Your task to perform on an android device: change alarm snooze length Image 0: 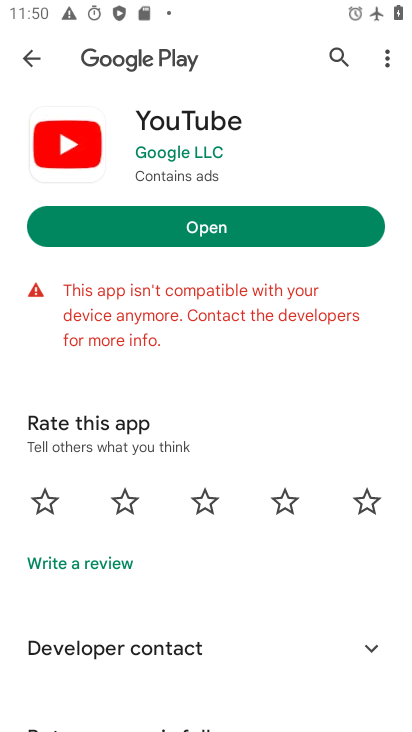
Step 0: press home button
Your task to perform on an android device: change alarm snooze length Image 1: 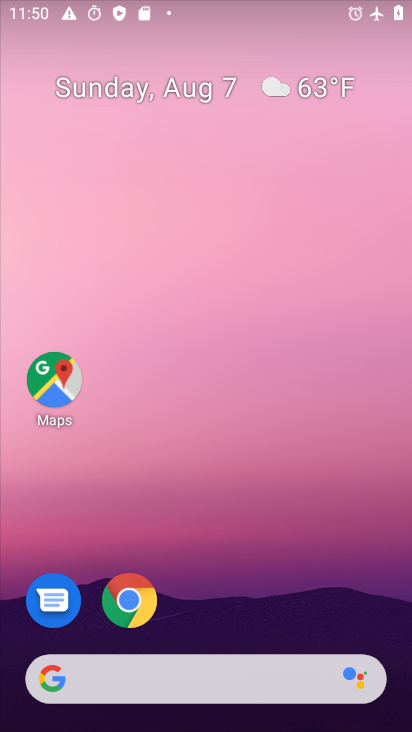
Step 1: drag from (236, 615) to (257, 74)
Your task to perform on an android device: change alarm snooze length Image 2: 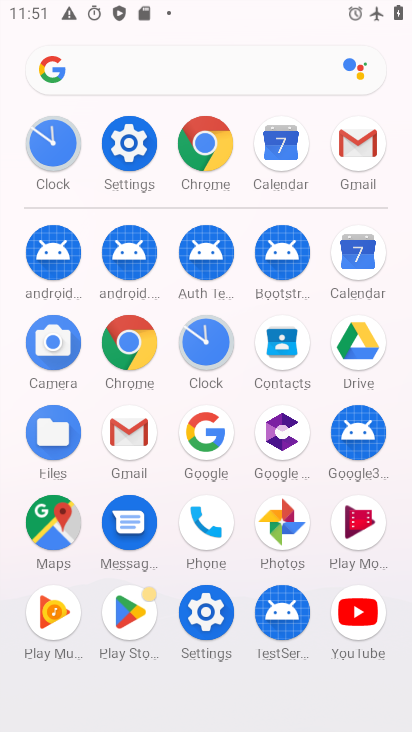
Step 2: click (212, 364)
Your task to perform on an android device: change alarm snooze length Image 3: 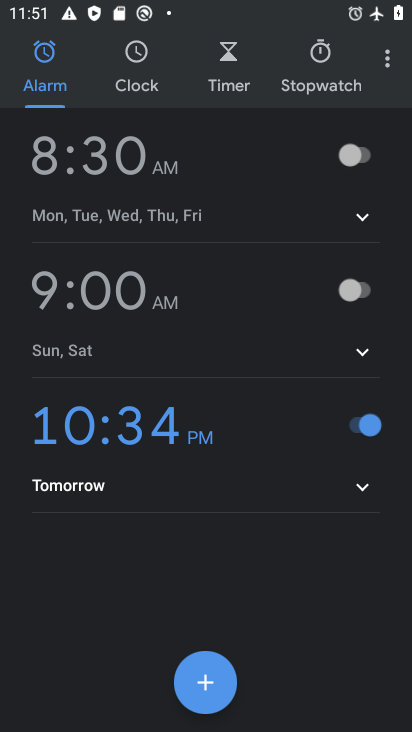
Step 3: click (387, 65)
Your task to perform on an android device: change alarm snooze length Image 4: 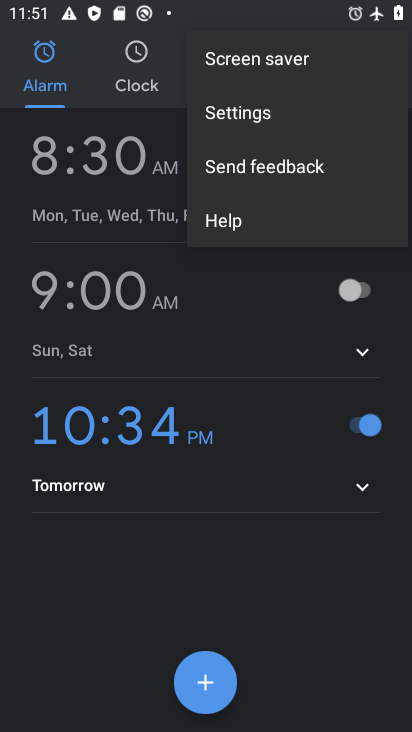
Step 4: click (251, 118)
Your task to perform on an android device: change alarm snooze length Image 5: 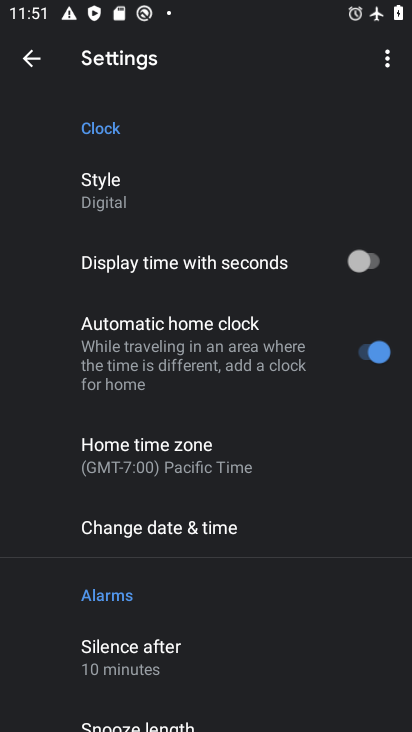
Step 5: drag from (193, 457) to (182, 138)
Your task to perform on an android device: change alarm snooze length Image 6: 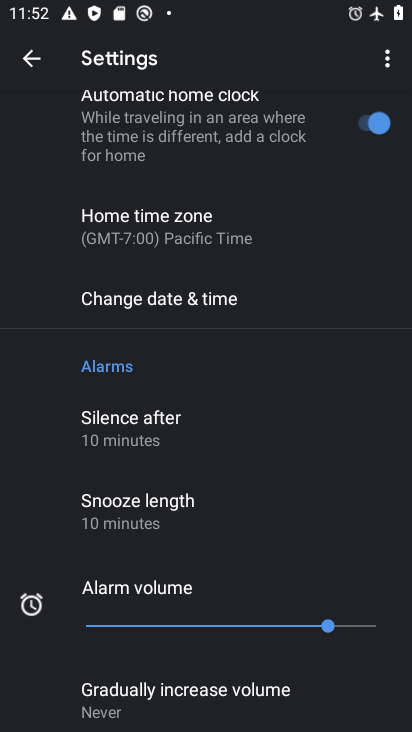
Step 6: drag from (208, 548) to (221, 368)
Your task to perform on an android device: change alarm snooze length Image 7: 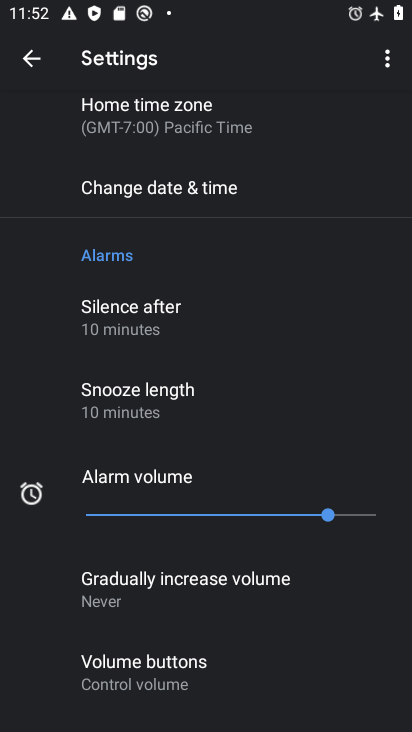
Step 7: click (163, 405)
Your task to perform on an android device: change alarm snooze length Image 8: 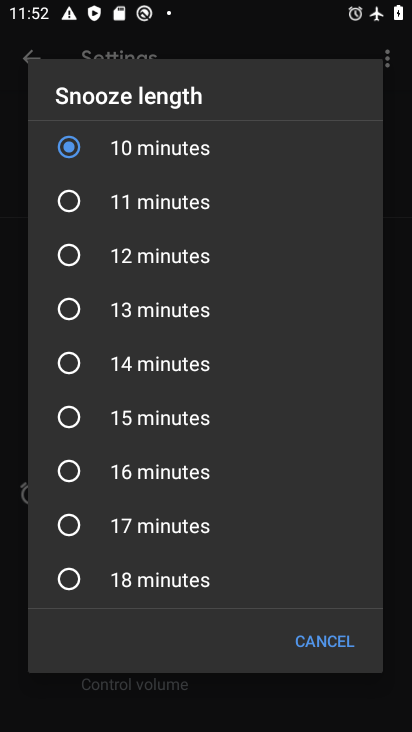
Step 8: click (57, 258)
Your task to perform on an android device: change alarm snooze length Image 9: 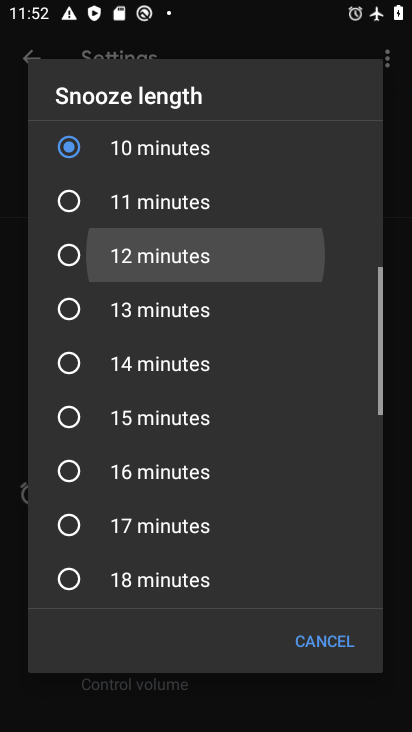
Step 9: click (76, 260)
Your task to perform on an android device: change alarm snooze length Image 10: 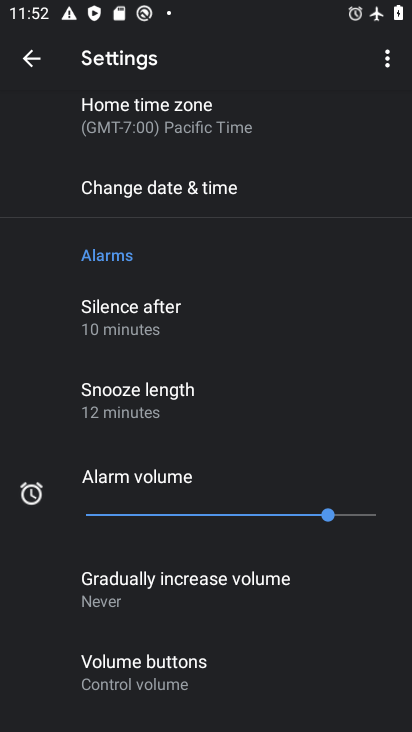
Step 10: task complete